Your task to perform on an android device: open chrome privacy settings Image 0: 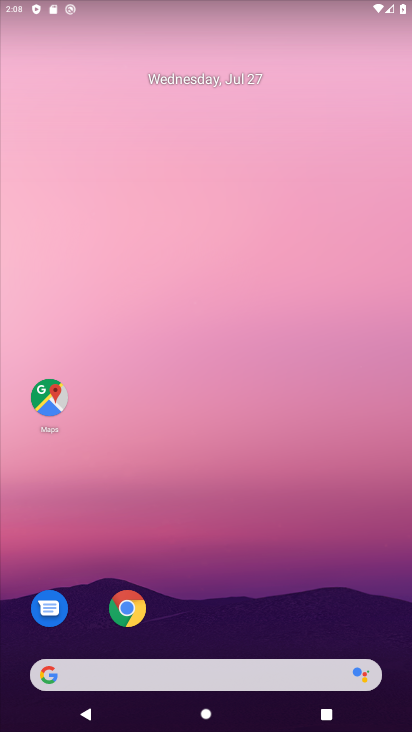
Step 0: drag from (215, 538) to (247, 150)
Your task to perform on an android device: open chrome privacy settings Image 1: 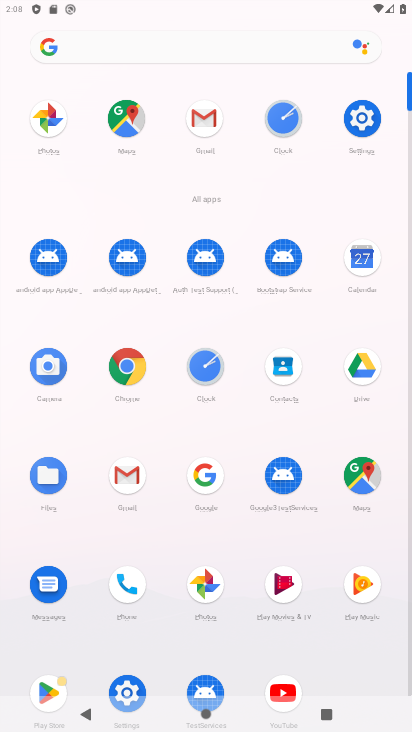
Step 1: click (360, 116)
Your task to perform on an android device: open chrome privacy settings Image 2: 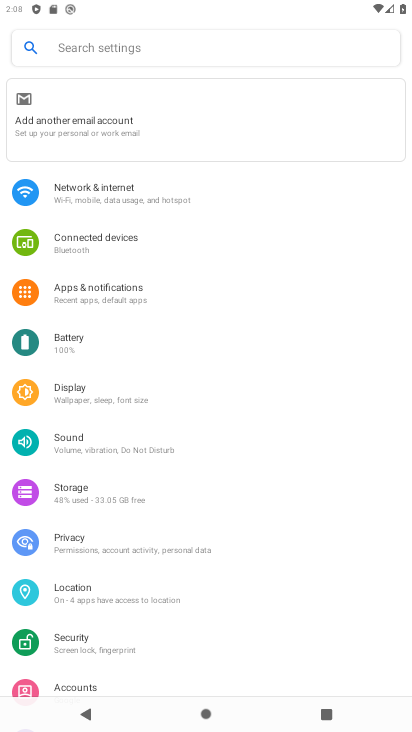
Step 2: click (91, 537)
Your task to perform on an android device: open chrome privacy settings Image 3: 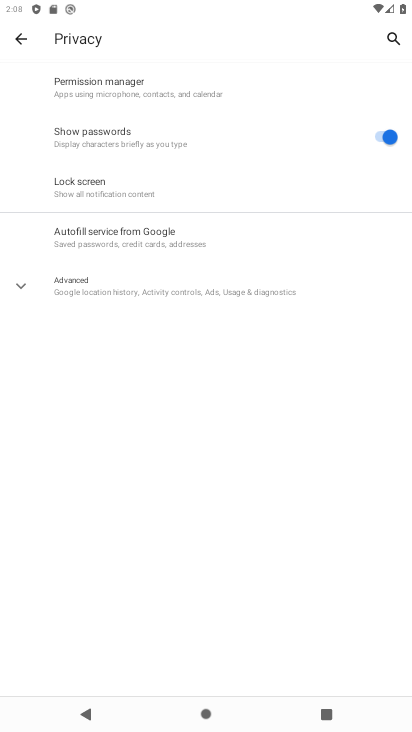
Step 3: task complete